Your task to perform on an android device: What's on my calendar tomorrow? Image 0: 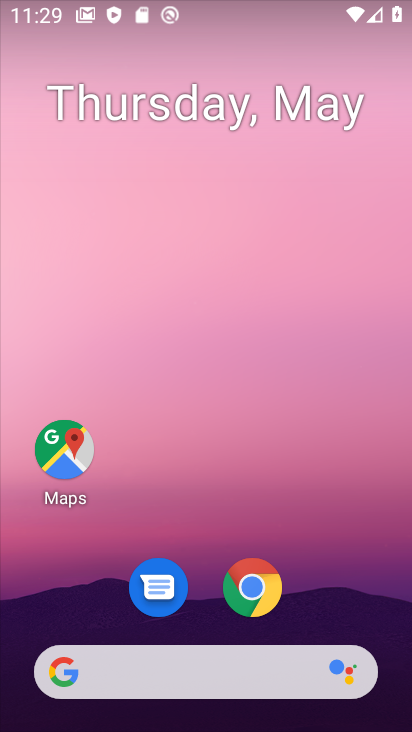
Step 0: drag from (197, 623) to (286, 41)
Your task to perform on an android device: What's on my calendar tomorrow? Image 1: 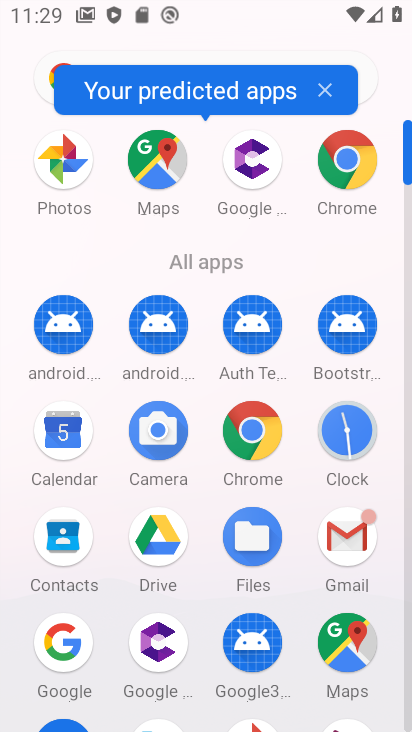
Step 1: click (58, 438)
Your task to perform on an android device: What's on my calendar tomorrow? Image 2: 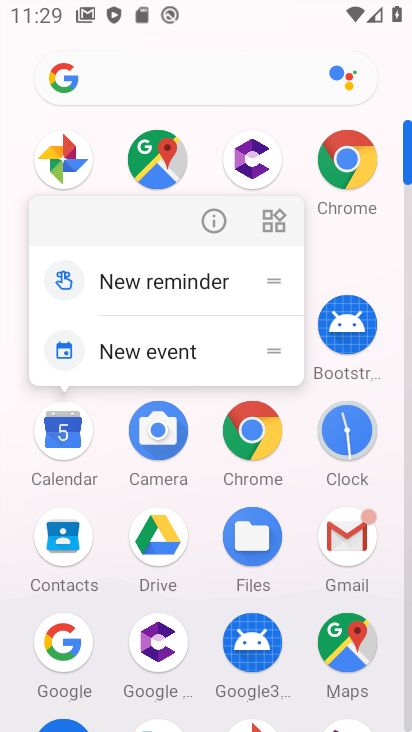
Step 2: click (68, 430)
Your task to perform on an android device: What's on my calendar tomorrow? Image 3: 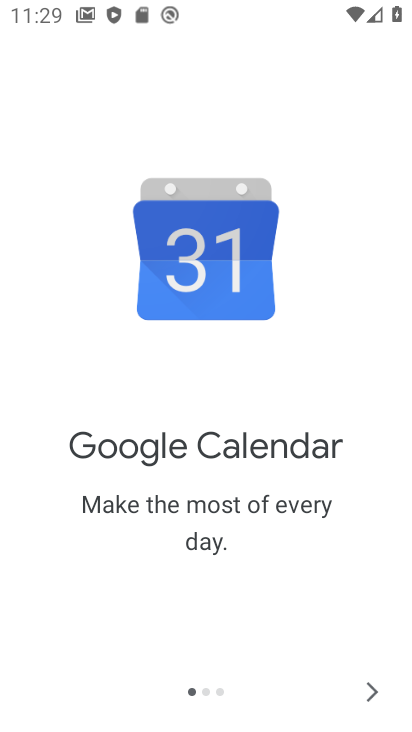
Step 3: click (377, 688)
Your task to perform on an android device: What's on my calendar tomorrow? Image 4: 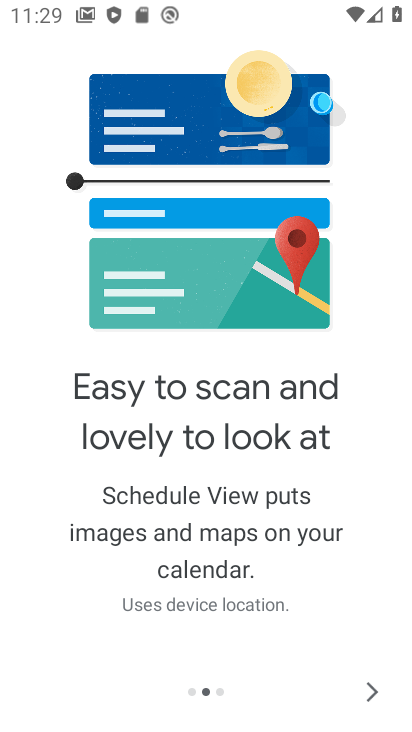
Step 4: click (376, 687)
Your task to perform on an android device: What's on my calendar tomorrow? Image 5: 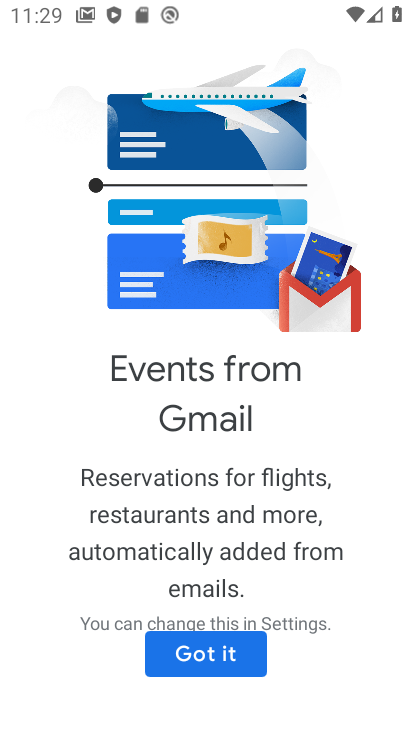
Step 5: click (212, 657)
Your task to perform on an android device: What's on my calendar tomorrow? Image 6: 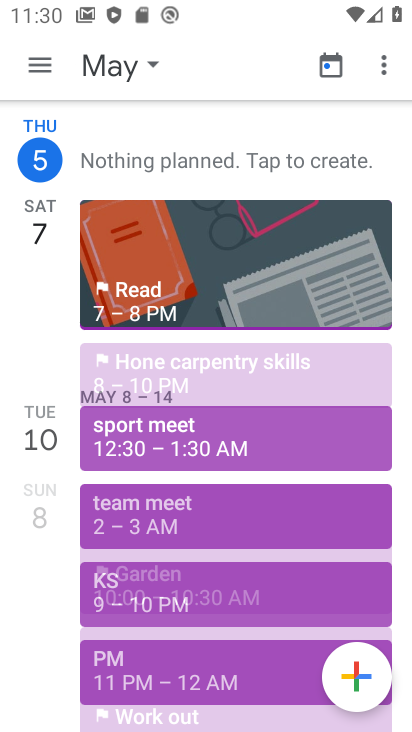
Step 6: click (128, 63)
Your task to perform on an android device: What's on my calendar tomorrow? Image 7: 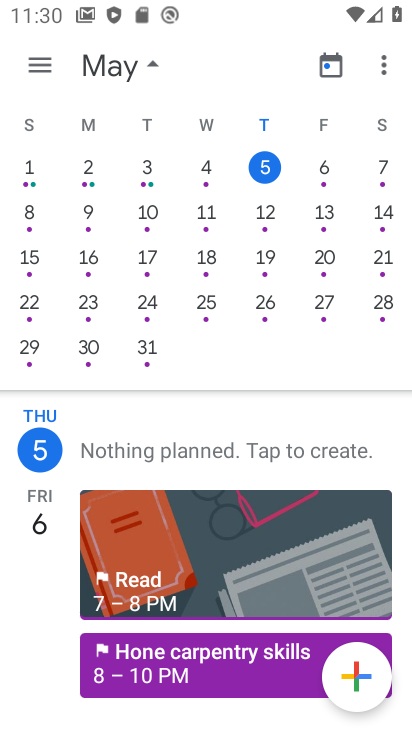
Step 7: click (322, 169)
Your task to perform on an android device: What's on my calendar tomorrow? Image 8: 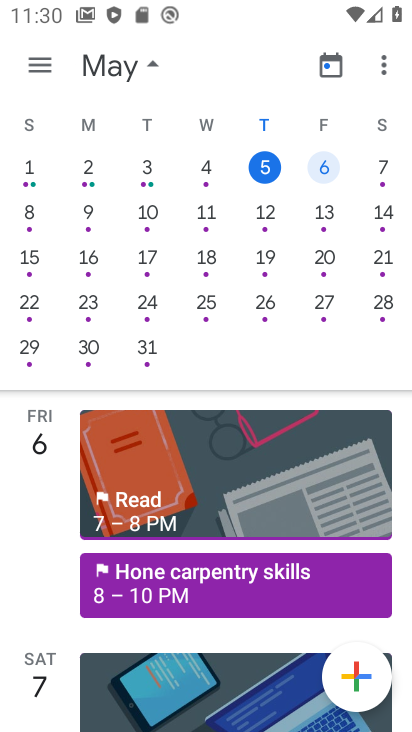
Step 8: click (186, 587)
Your task to perform on an android device: What's on my calendar tomorrow? Image 9: 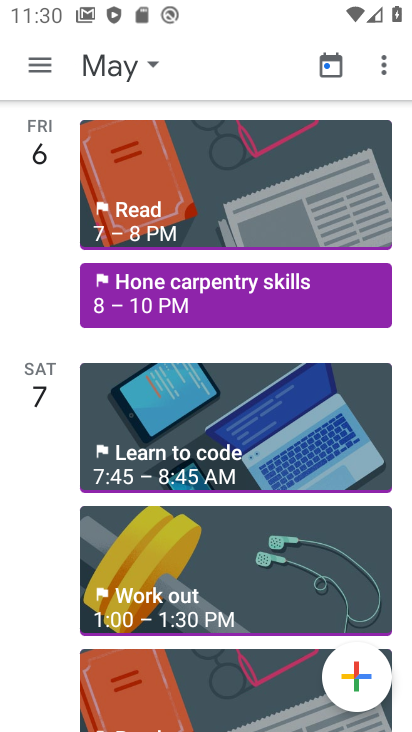
Step 9: task complete